Your task to perform on an android device: turn off priority inbox in the gmail app Image 0: 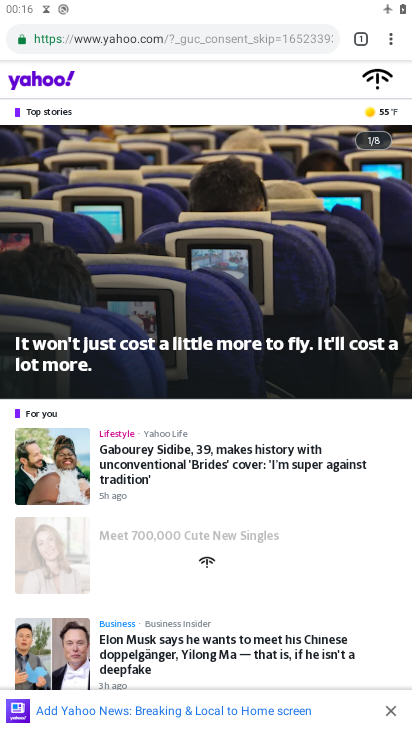
Step 0: press home button
Your task to perform on an android device: turn off priority inbox in the gmail app Image 1: 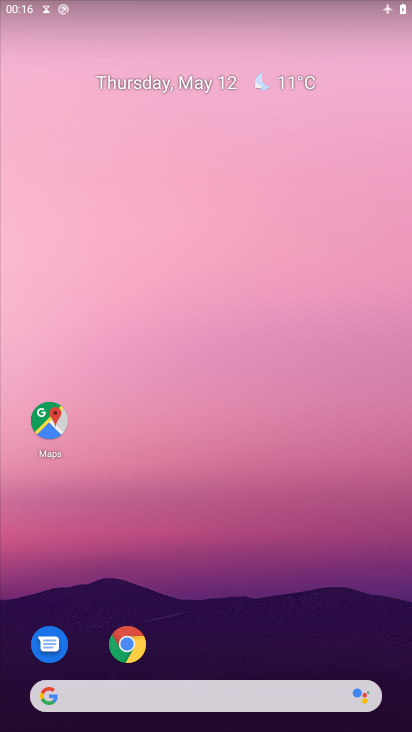
Step 1: drag from (224, 661) to (221, 26)
Your task to perform on an android device: turn off priority inbox in the gmail app Image 2: 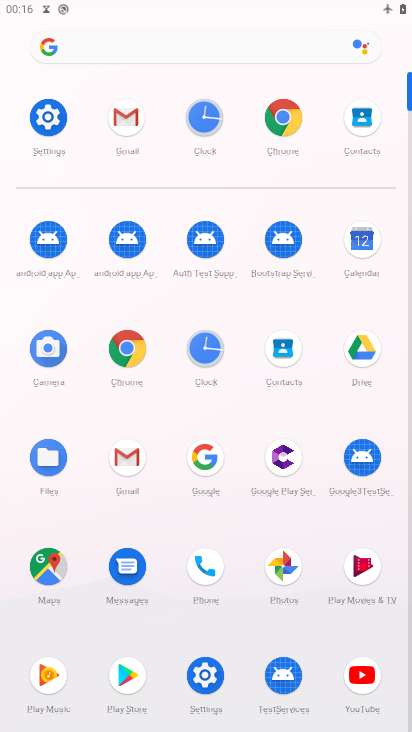
Step 2: click (127, 456)
Your task to perform on an android device: turn off priority inbox in the gmail app Image 3: 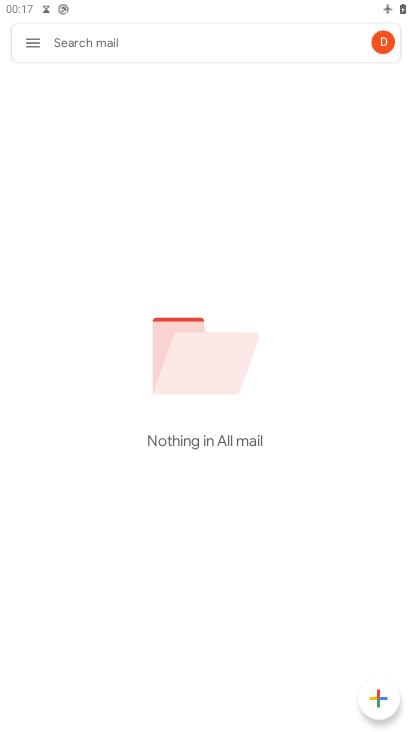
Step 3: click (34, 45)
Your task to perform on an android device: turn off priority inbox in the gmail app Image 4: 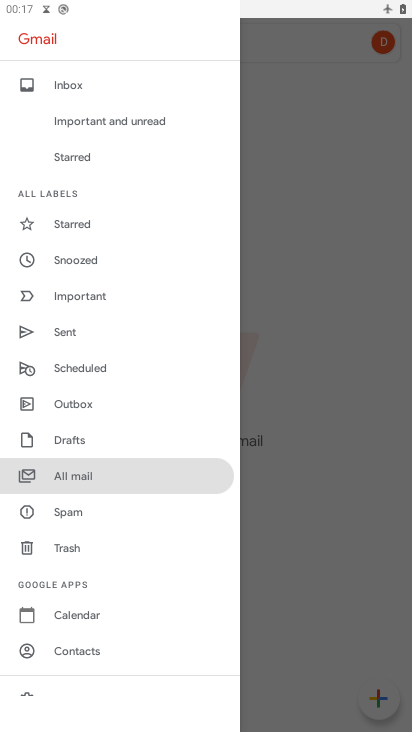
Step 4: drag from (98, 657) to (114, 220)
Your task to perform on an android device: turn off priority inbox in the gmail app Image 5: 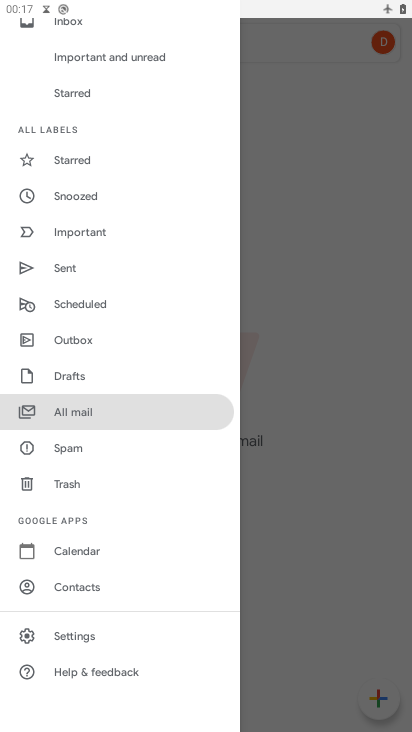
Step 5: click (101, 631)
Your task to perform on an android device: turn off priority inbox in the gmail app Image 6: 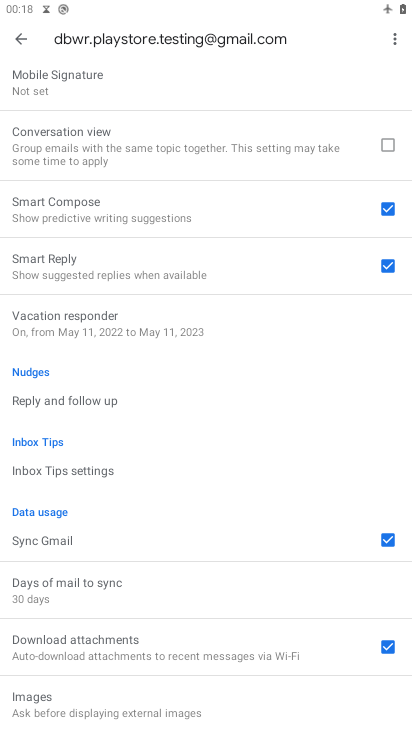
Step 6: drag from (89, 162) to (106, 677)
Your task to perform on an android device: turn off priority inbox in the gmail app Image 7: 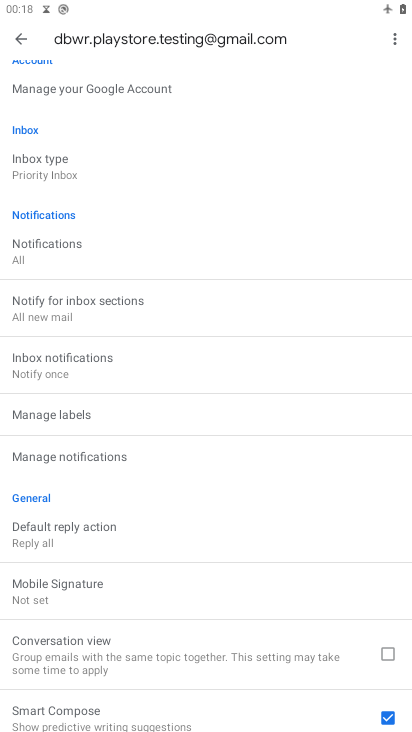
Step 7: drag from (85, 114) to (115, 498)
Your task to perform on an android device: turn off priority inbox in the gmail app Image 8: 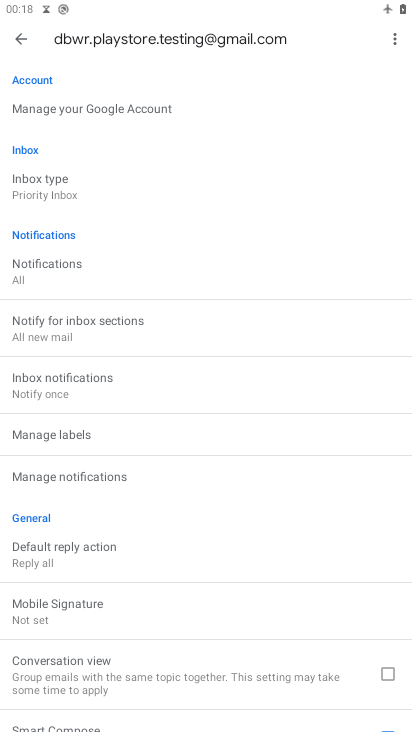
Step 8: click (88, 173)
Your task to perform on an android device: turn off priority inbox in the gmail app Image 9: 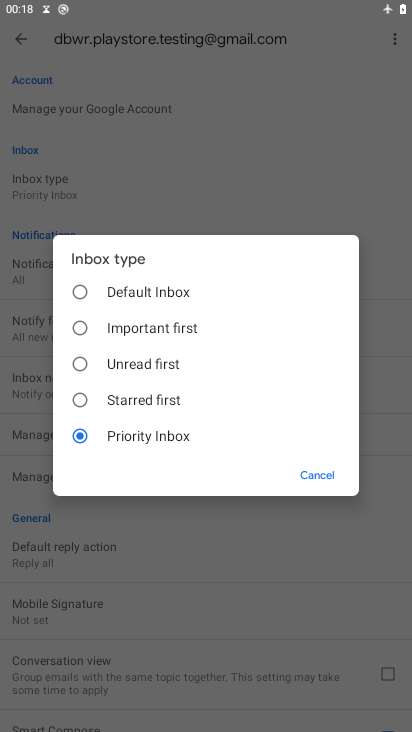
Step 9: click (79, 288)
Your task to perform on an android device: turn off priority inbox in the gmail app Image 10: 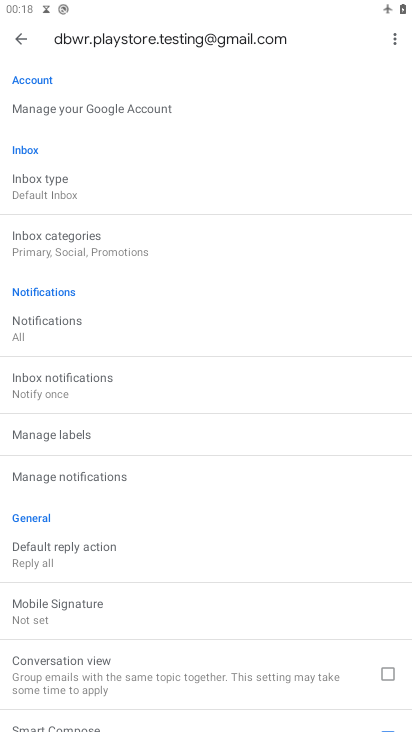
Step 10: task complete